Your task to perform on an android device: toggle priority inbox in the gmail app Image 0: 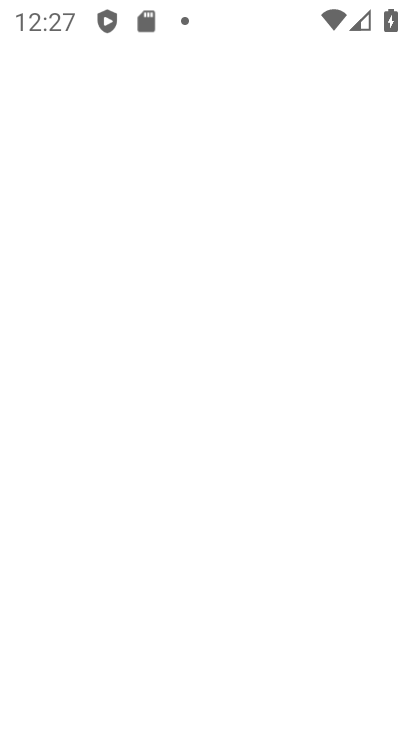
Step 0: press home button
Your task to perform on an android device: toggle priority inbox in the gmail app Image 1: 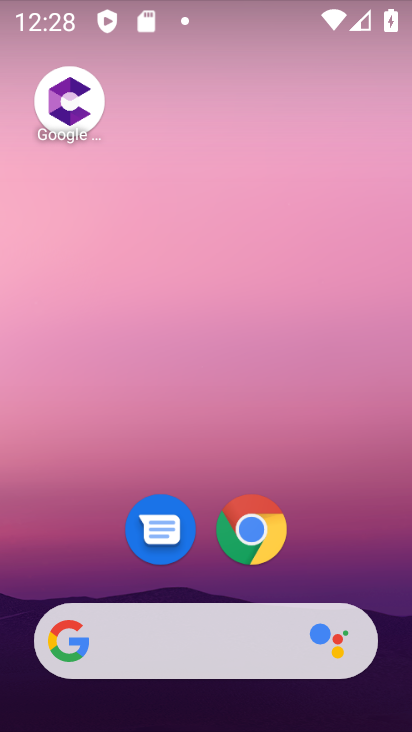
Step 1: drag from (396, 641) to (270, 115)
Your task to perform on an android device: toggle priority inbox in the gmail app Image 2: 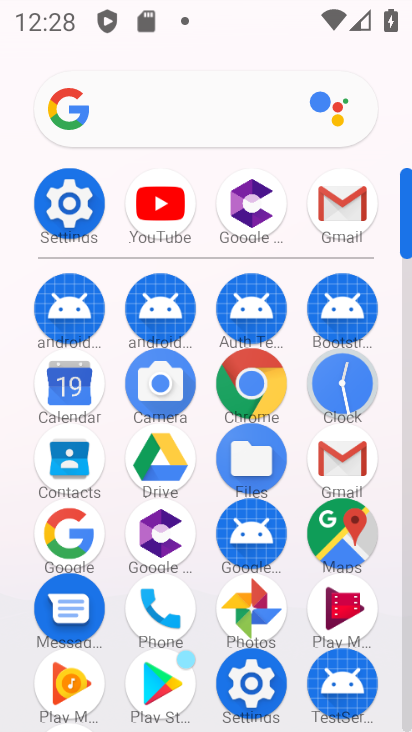
Step 2: click (340, 463)
Your task to perform on an android device: toggle priority inbox in the gmail app Image 3: 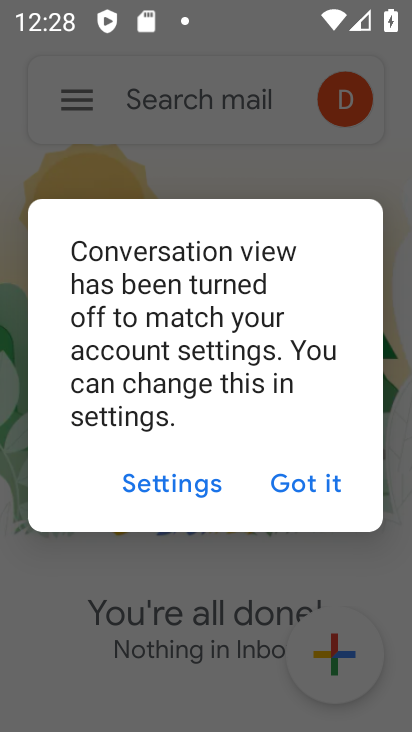
Step 3: press back button
Your task to perform on an android device: toggle priority inbox in the gmail app Image 4: 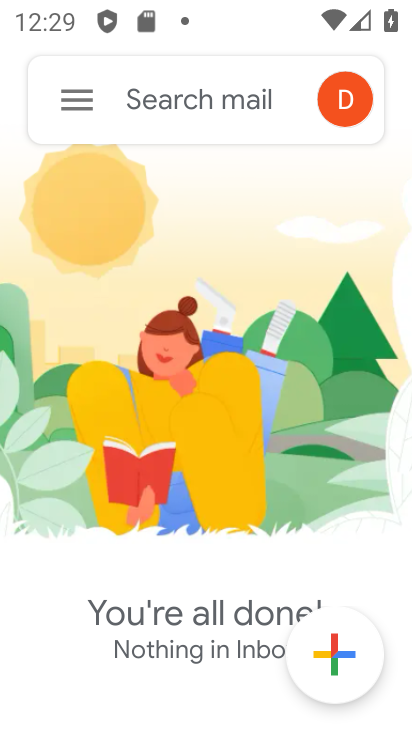
Step 4: click (49, 89)
Your task to perform on an android device: toggle priority inbox in the gmail app Image 5: 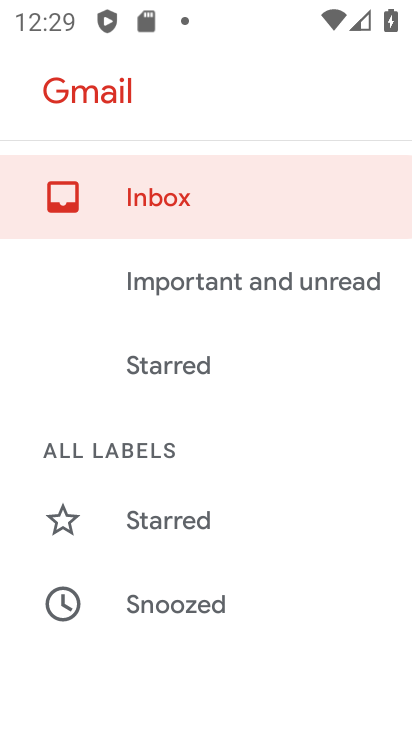
Step 5: drag from (156, 647) to (232, 165)
Your task to perform on an android device: toggle priority inbox in the gmail app Image 6: 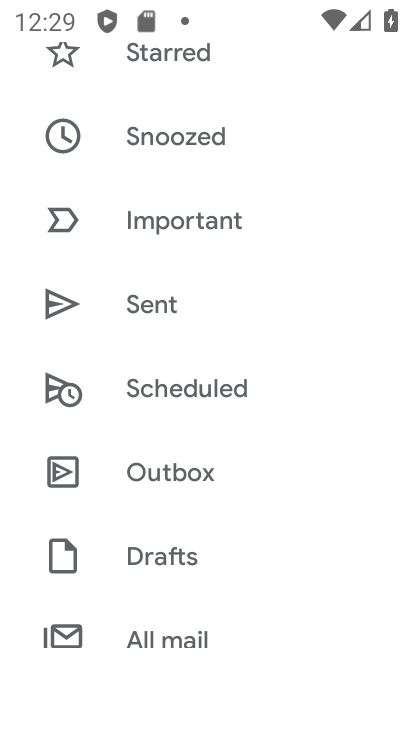
Step 6: drag from (158, 611) to (273, 147)
Your task to perform on an android device: toggle priority inbox in the gmail app Image 7: 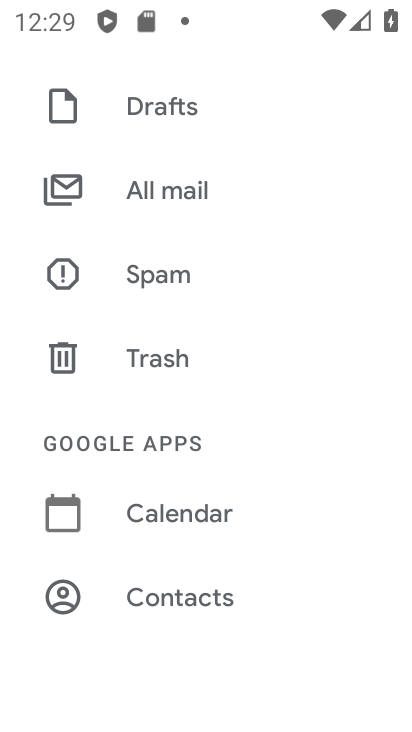
Step 7: drag from (172, 593) to (259, 127)
Your task to perform on an android device: toggle priority inbox in the gmail app Image 8: 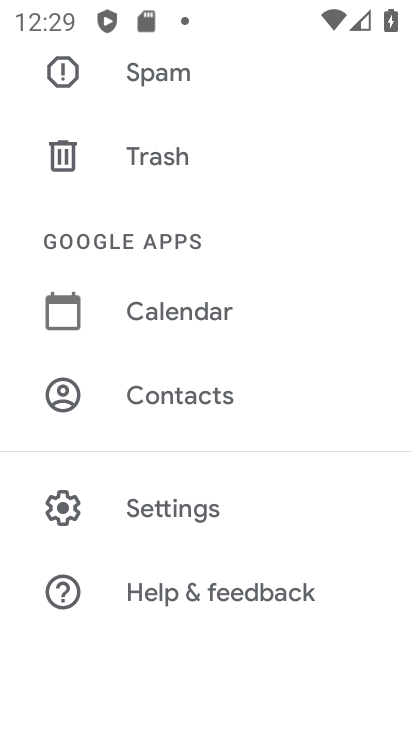
Step 8: click (194, 509)
Your task to perform on an android device: toggle priority inbox in the gmail app Image 9: 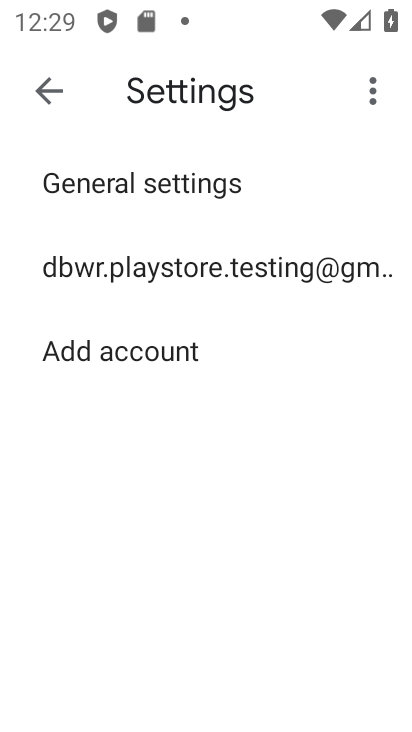
Step 9: click (198, 272)
Your task to perform on an android device: toggle priority inbox in the gmail app Image 10: 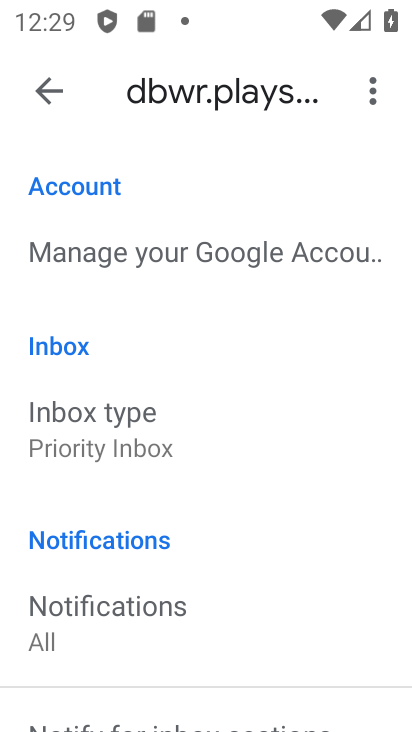
Step 10: click (190, 441)
Your task to perform on an android device: toggle priority inbox in the gmail app Image 11: 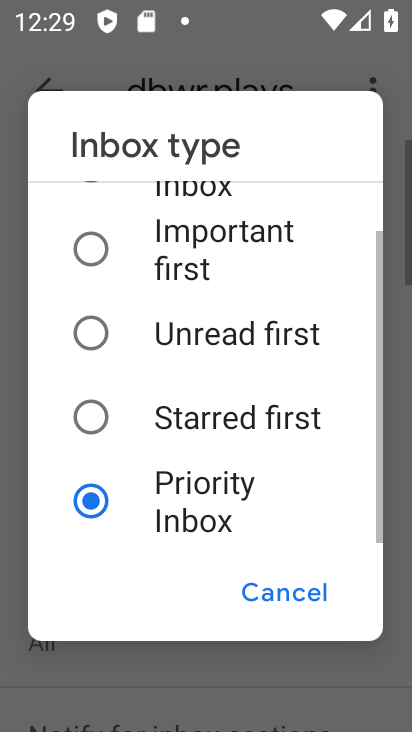
Step 11: click (160, 405)
Your task to perform on an android device: toggle priority inbox in the gmail app Image 12: 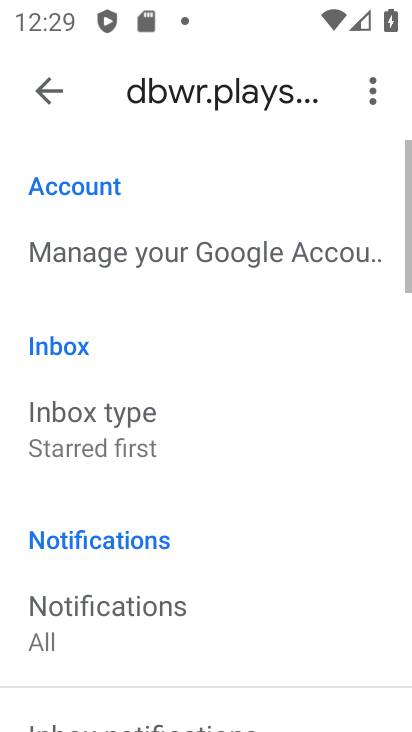
Step 12: task complete